Your task to perform on an android device: Go to calendar. Show me events next week Image 0: 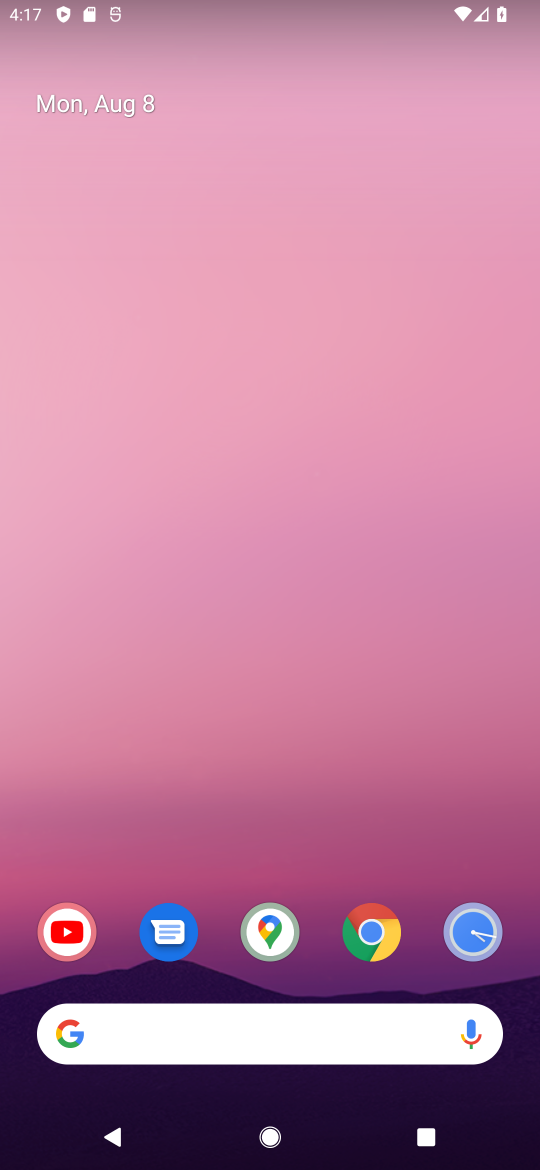
Step 0: drag from (34, 1114) to (266, 4)
Your task to perform on an android device: Go to calendar. Show me events next week Image 1: 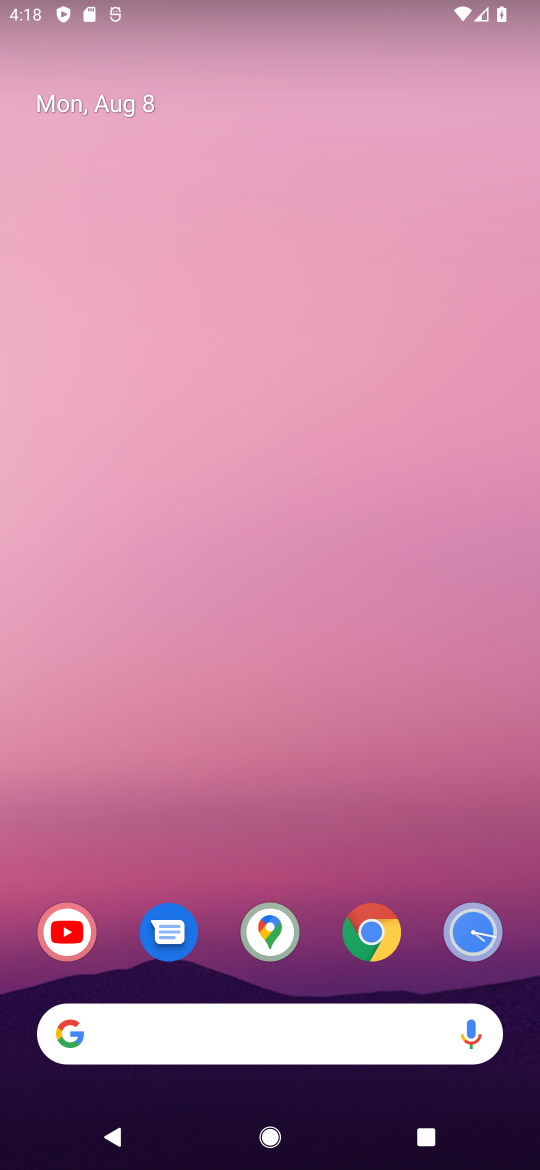
Step 1: drag from (158, 696) to (360, 65)
Your task to perform on an android device: Go to calendar. Show me events next week Image 2: 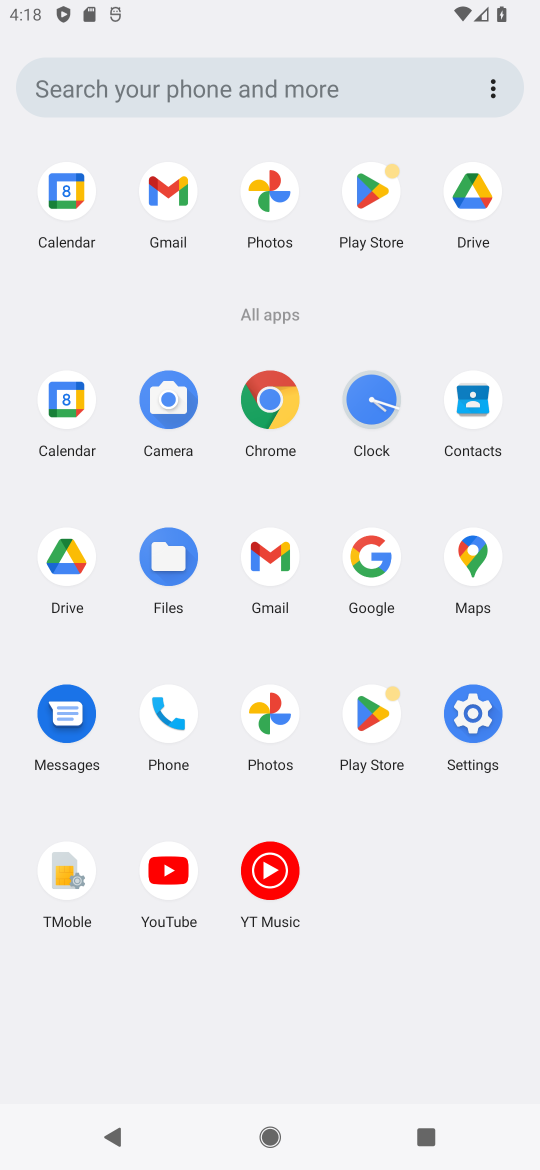
Step 2: click (62, 185)
Your task to perform on an android device: Go to calendar. Show me events next week Image 3: 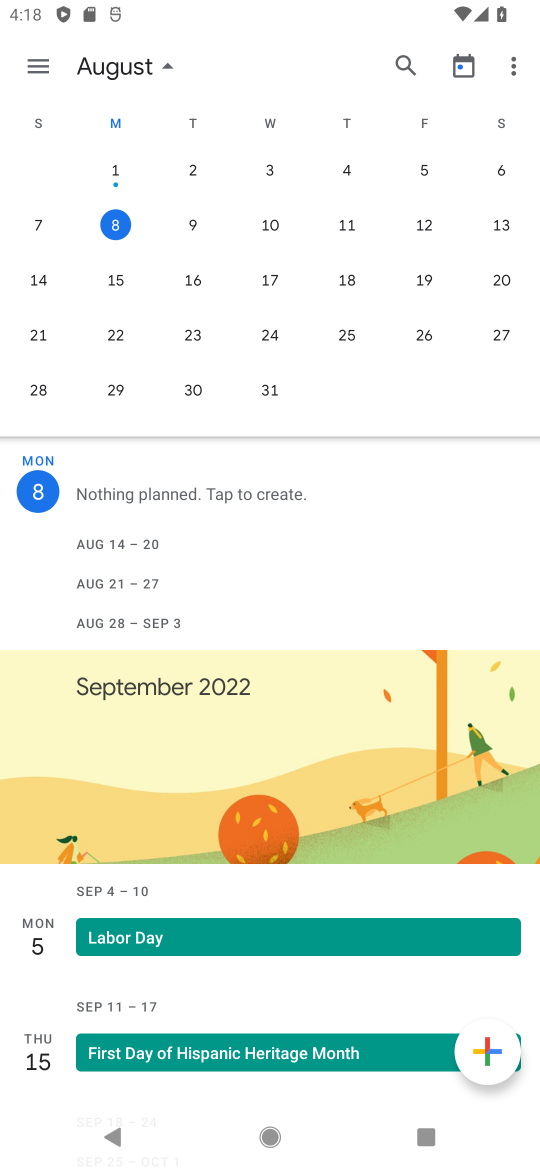
Step 3: click (199, 217)
Your task to perform on an android device: Go to calendar. Show me events next week Image 4: 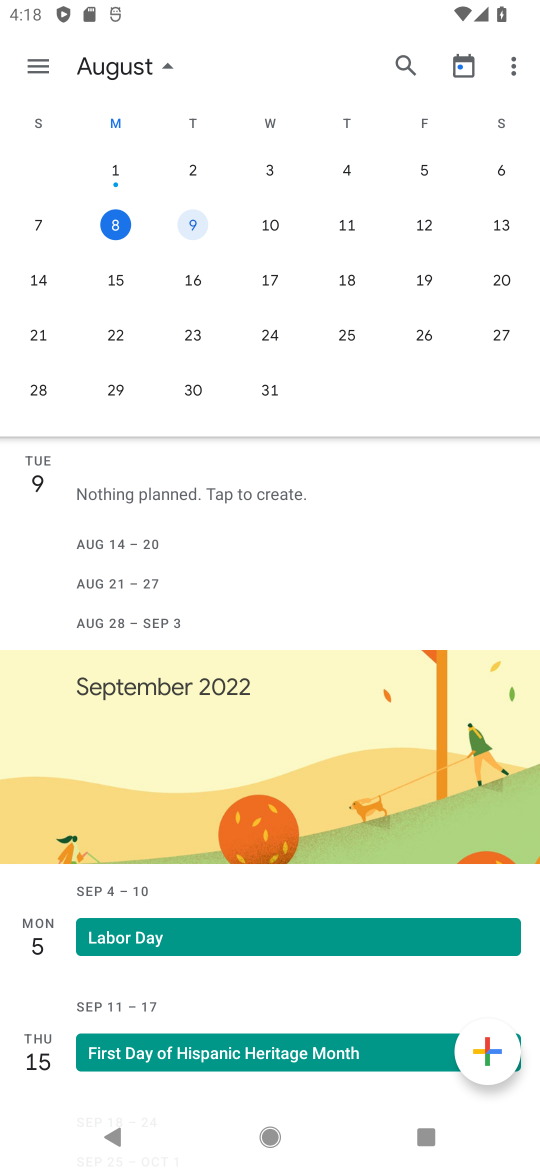
Step 4: task complete